Your task to perform on an android device: Find coffee shops on Maps Image 0: 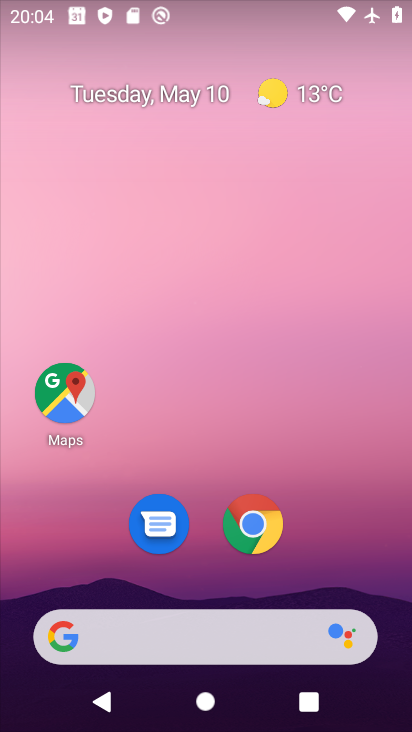
Step 0: click (53, 395)
Your task to perform on an android device: Find coffee shops on Maps Image 1: 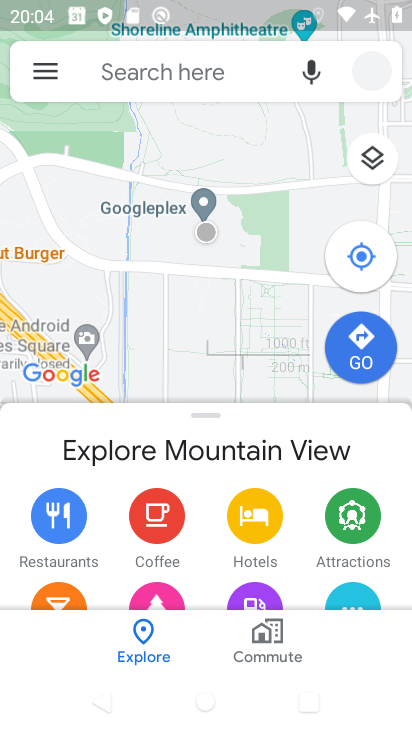
Step 1: click (192, 64)
Your task to perform on an android device: Find coffee shops on Maps Image 2: 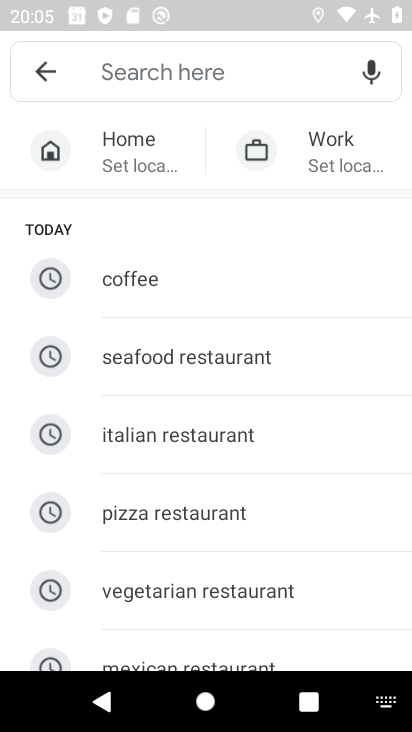
Step 2: click (179, 273)
Your task to perform on an android device: Find coffee shops on Maps Image 3: 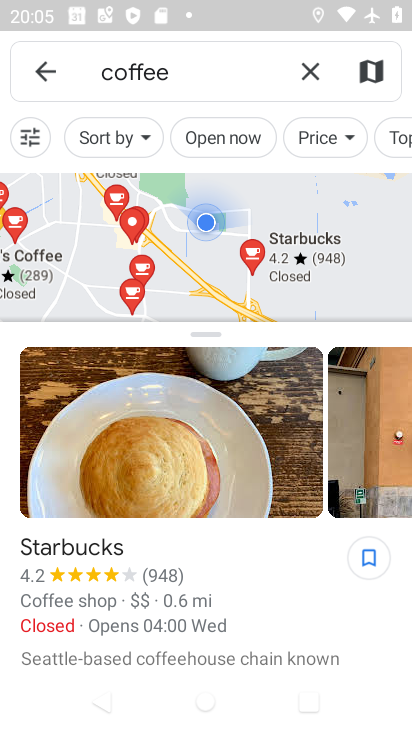
Step 3: task complete